Your task to perform on an android device: turn on the 24-hour format for clock Image 0: 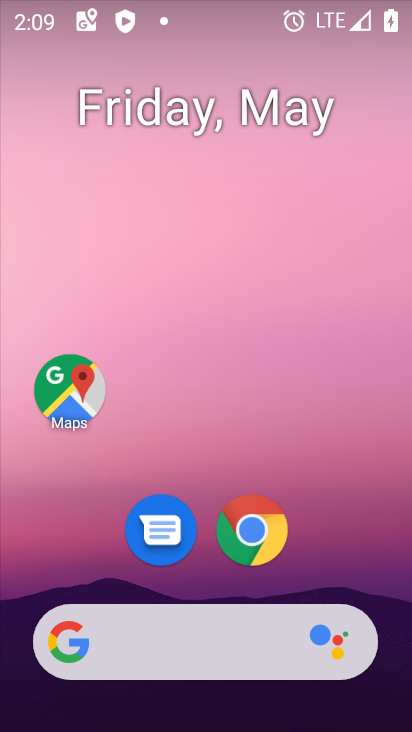
Step 0: drag from (343, 583) to (297, 0)
Your task to perform on an android device: turn on the 24-hour format for clock Image 1: 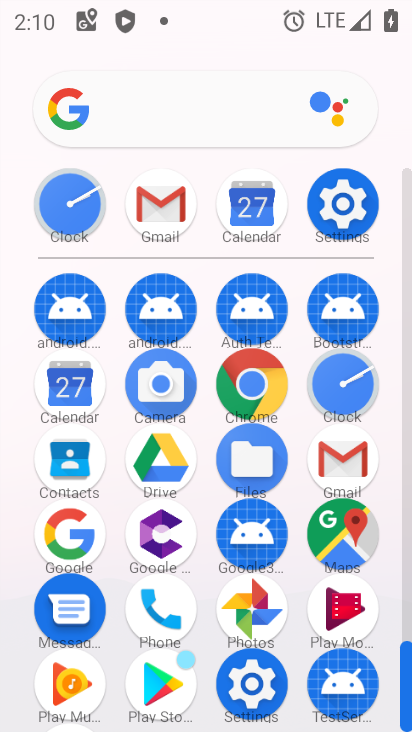
Step 1: click (317, 398)
Your task to perform on an android device: turn on the 24-hour format for clock Image 2: 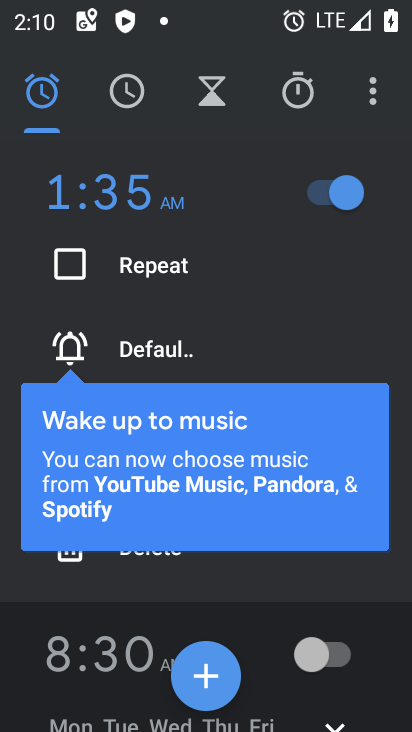
Step 2: click (362, 97)
Your task to perform on an android device: turn on the 24-hour format for clock Image 3: 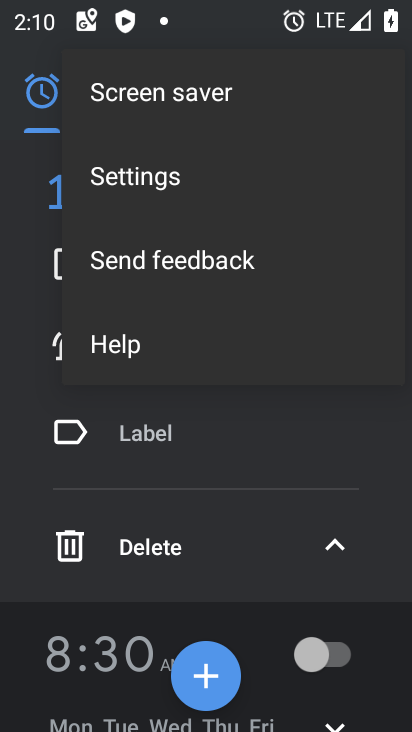
Step 3: click (122, 183)
Your task to perform on an android device: turn on the 24-hour format for clock Image 4: 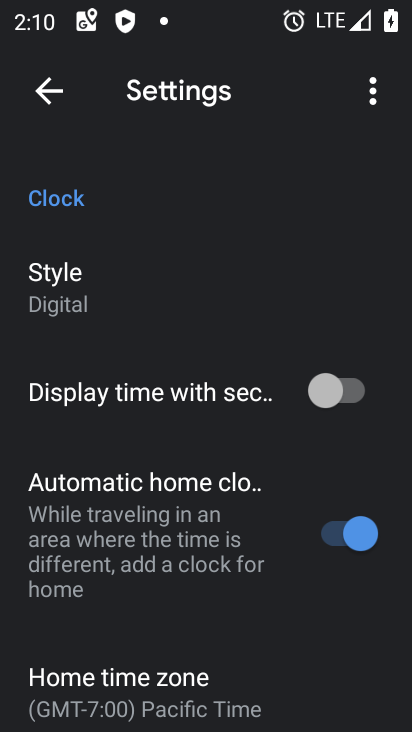
Step 4: drag from (78, 503) to (36, 163)
Your task to perform on an android device: turn on the 24-hour format for clock Image 5: 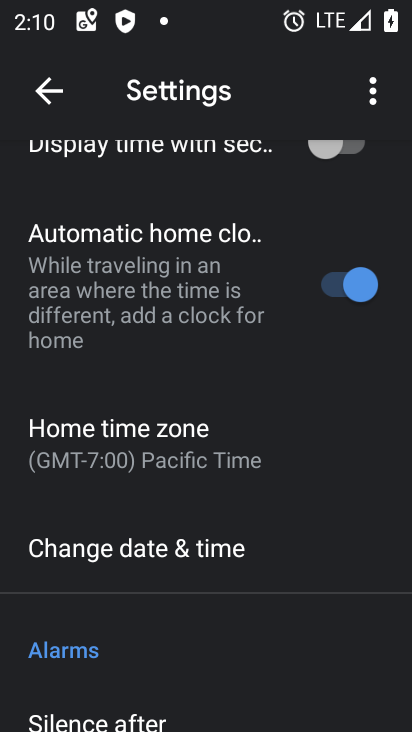
Step 5: click (250, 538)
Your task to perform on an android device: turn on the 24-hour format for clock Image 6: 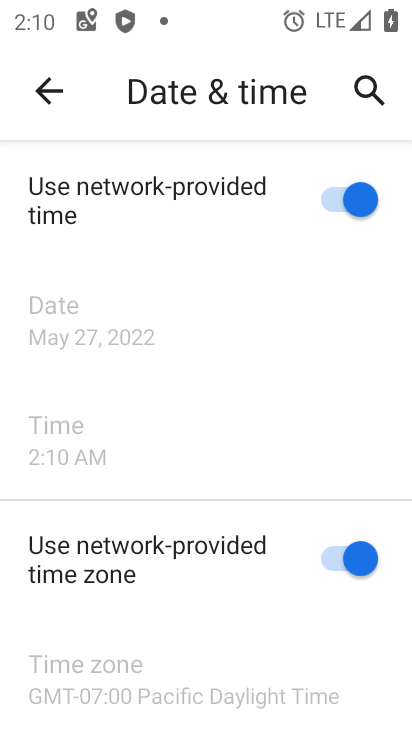
Step 6: drag from (178, 603) to (170, 129)
Your task to perform on an android device: turn on the 24-hour format for clock Image 7: 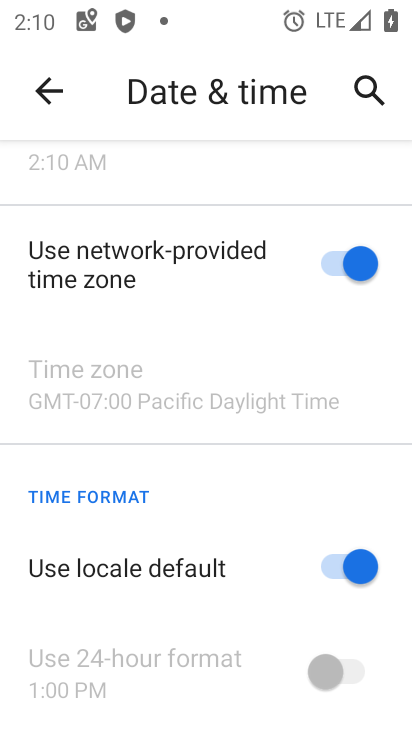
Step 7: click (354, 572)
Your task to perform on an android device: turn on the 24-hour format for clock Image 8: 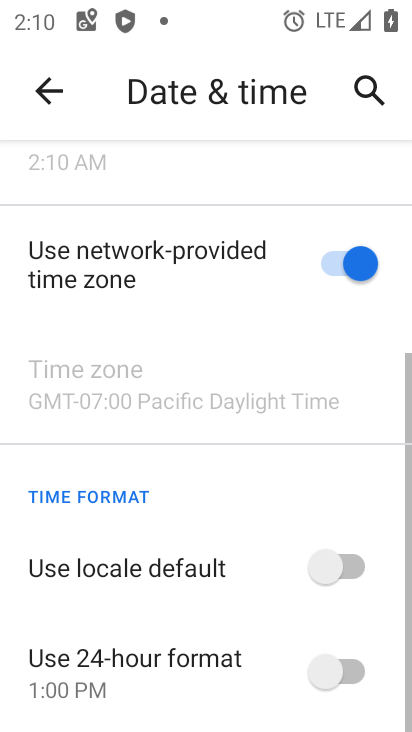
Step 8: click (334, 672)
Your task to perform on an android device: turn on the 24-hour format for clock Image 9: 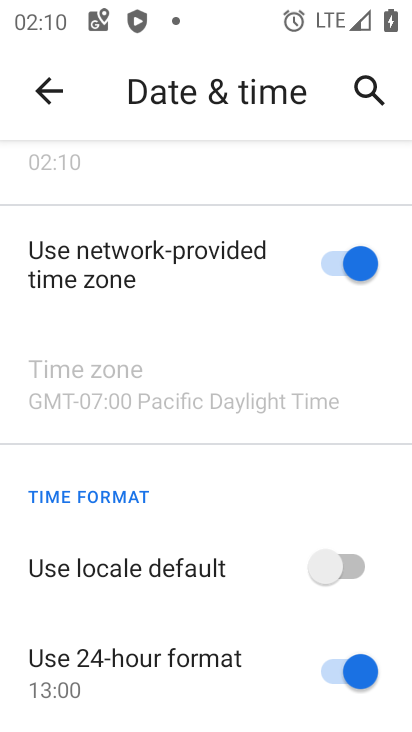
Step 9: task complete